Your task to perform on an android device: toggle javascript in the chrome app Image 0: 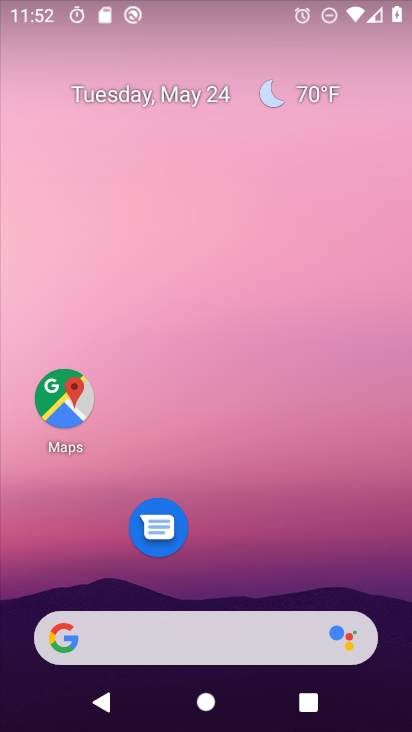
Step 0: drag from (224, 576) to (271, 75)
Your task to perform on an android device: toggle javascript in the chrome app Image 1: 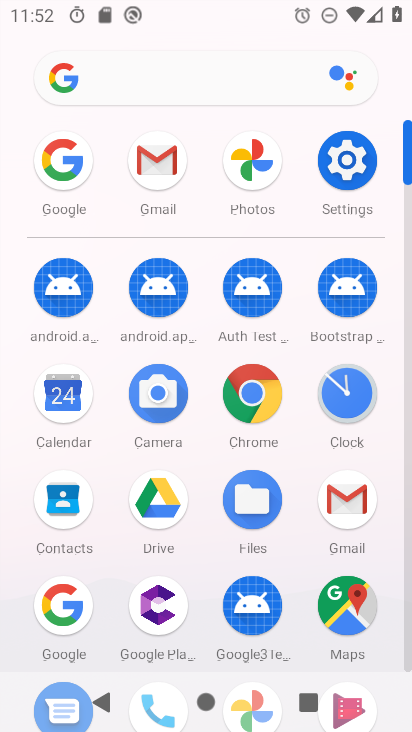
Step 1: click (257, 398)
Your task to perform on an android device: toggle javascript in the chrome app Image 2: 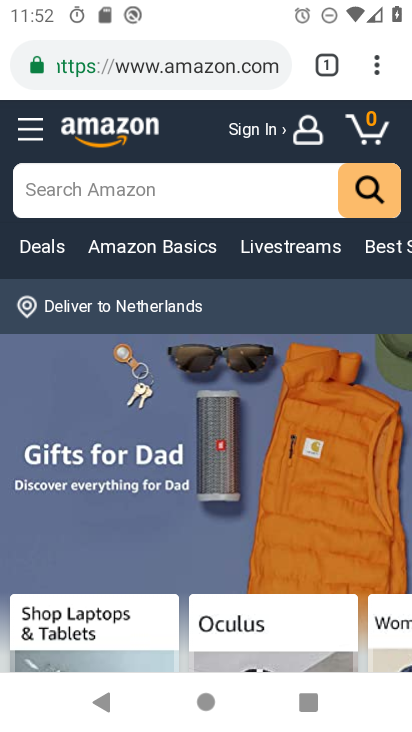
Step 2: click (370, 71)
Your task to perform on an android device: toggle javascript in the chrome app Image 3: 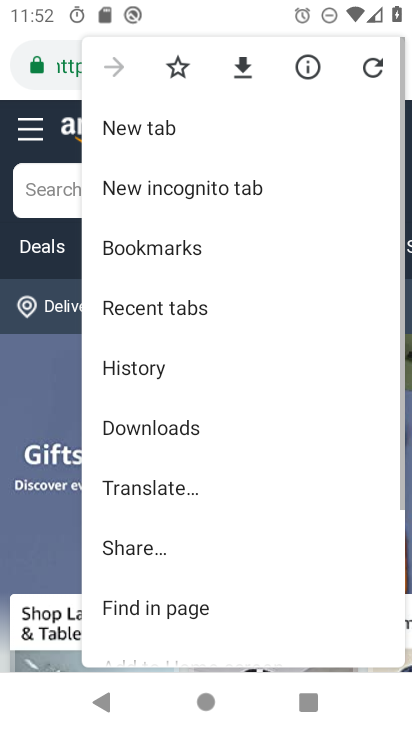
Step 3: drag from (264, 591) to (254, 95)
Your task to perform on an android device: toggle javascript in the chrome app Image 4: 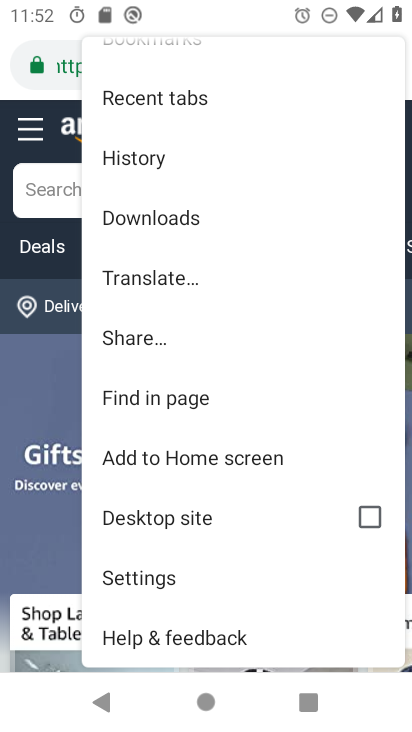
Step 4: click (164, 568)
Your task to perform on an android device: toggle javascript in the chrome app Image 5: 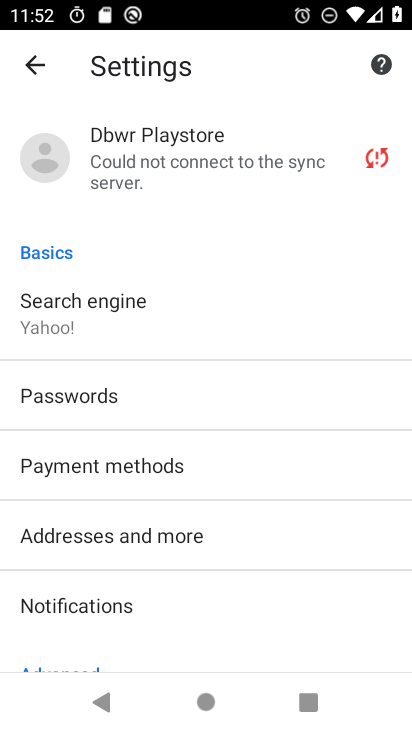
Step 5: drag from (282, 521) to (285, 126)
Your task to perform on an android device: toggle javascript in the chrome app Image 6: 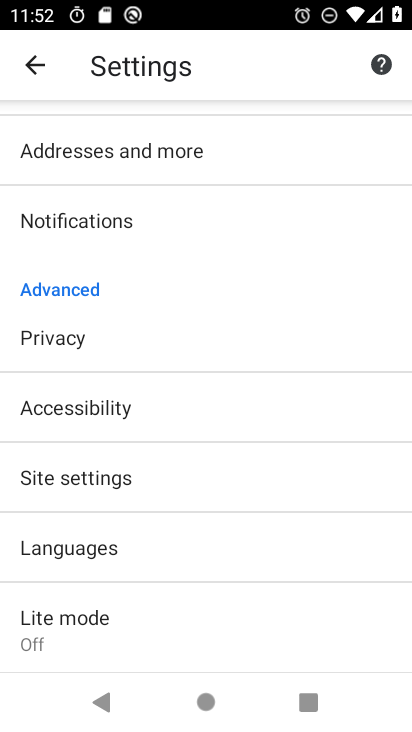
Step 6: click (77, 474)
Your task to perform on an android device: toggle javascript in the chrome app Image 7: 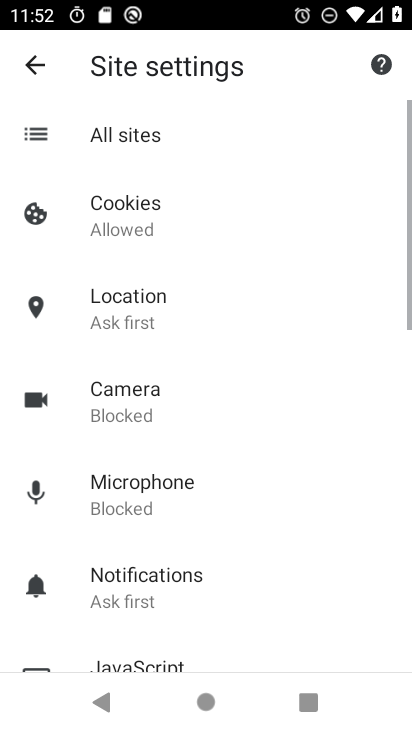
Step 7: drag from (301, 578) to (287, 154)
Your task to perform on an android device: toggle javascript in the chrome app Image 8: 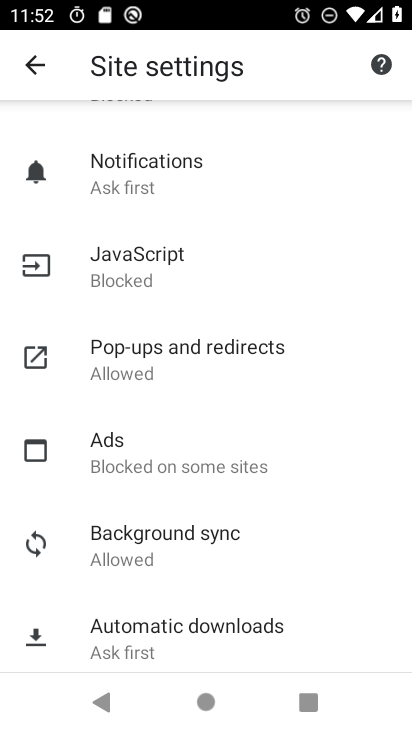
Step 8: drag from (215, 565) to (241, 535)
Your task to perform on an android device: toggle javascript in the chrome app Image 9: 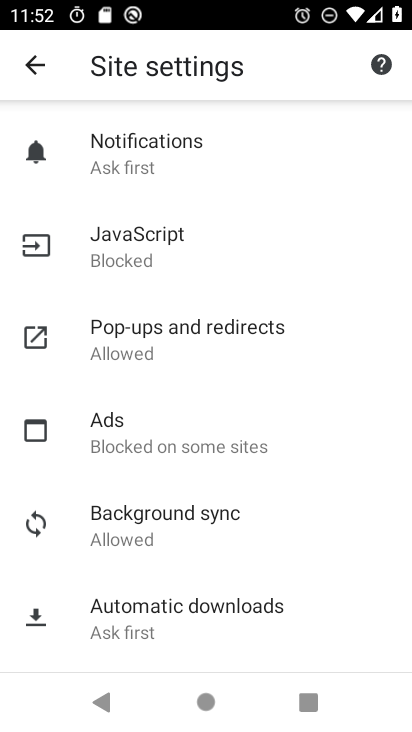
Step 9: click (157, 249)
Your task to perform on an android device: toggle javascript in the chrome app Image 10: 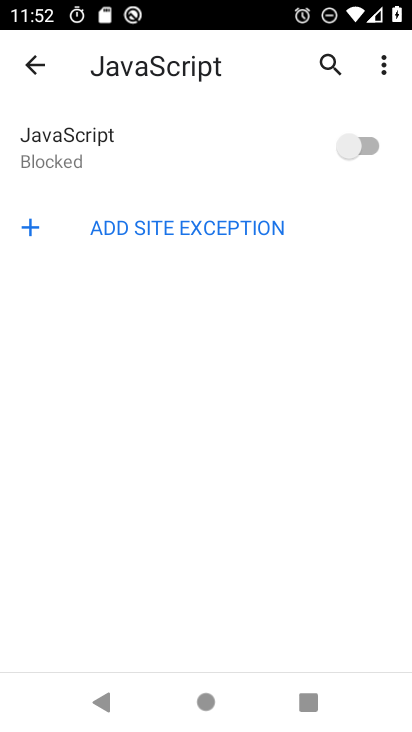
Step 10: click (356, 146)
Your task to perform on an android device: toggle javascript in the chrome app Image 11: 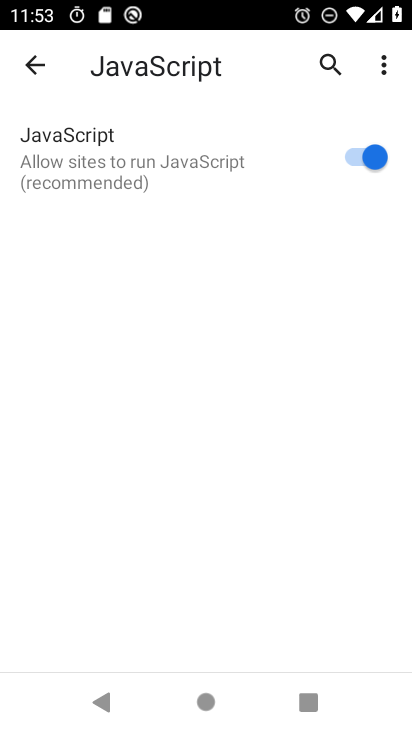
Step 11: task complete